Your task to perform on an android device: Search for usb-c on target.com, select the first entry, and add it to the cart. Image 0: 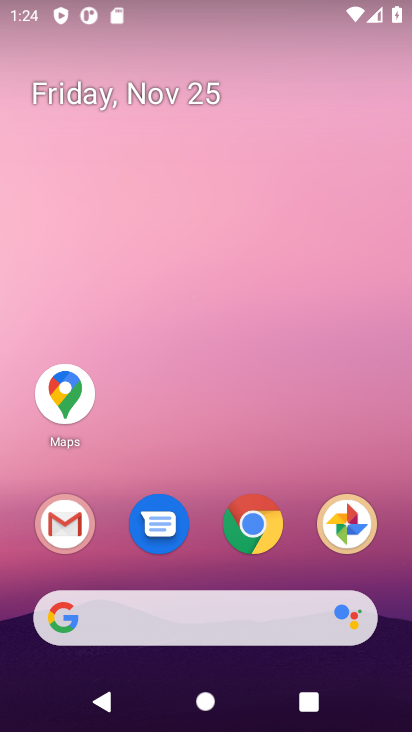
Step 0: click (252, 521)
Your task to perform on an android device: Search for usb-c on target.com, select the first entry, and add it to the cart. Image 1: 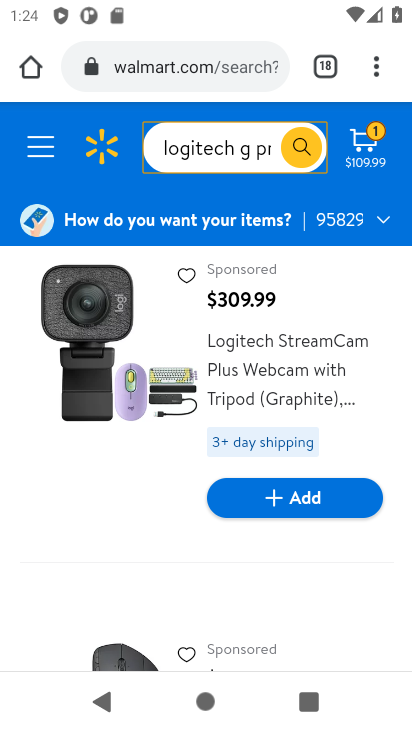
Step 1: click (162, 67)
Your task to perform on an android device: Search for usb-c on target.com, select the first entry, and add it to the cart. Image 2: 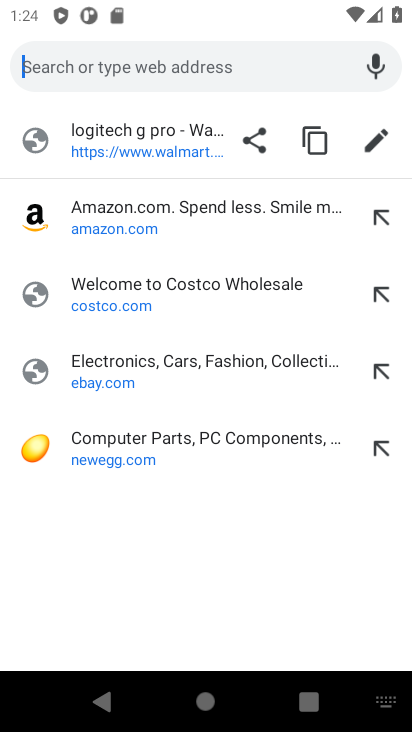
Step 2: type "target.com"
Your task to perform on an android device: Search for usb-c on target.com, select the first entry, and add it to the cart. Image 3: 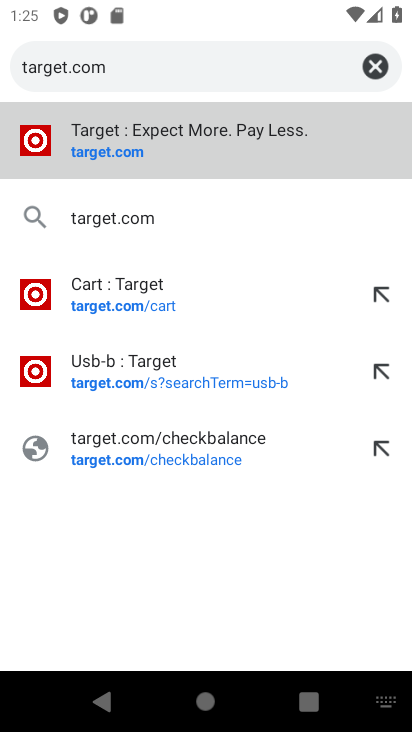
Step 3: click (97, 152)
Your task to perform on an android device: Search for usb-c on target.com, select the first entry, and add it to the cart. Image 4: 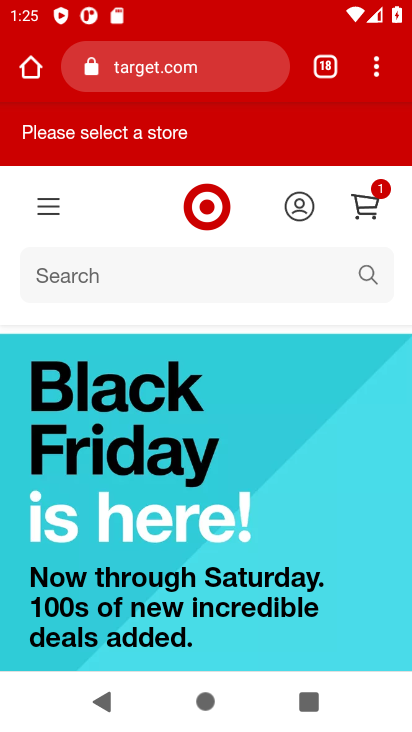
Step 4: click (366, 273)
Your task to perform on an android device: Search for usb-c on target.com, select the first entry, and add it to the cart. Image 5: 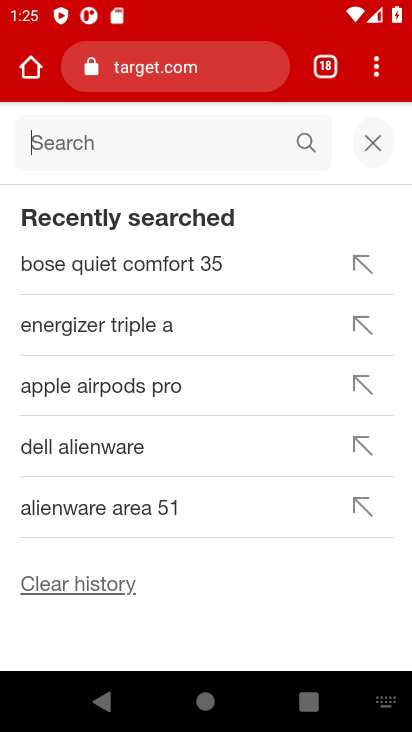
Step 5: type "usb-c "
Your task to perform on an android device: Search for usb-c on target.com, select the first entry, and add it to the cart. Image 6: 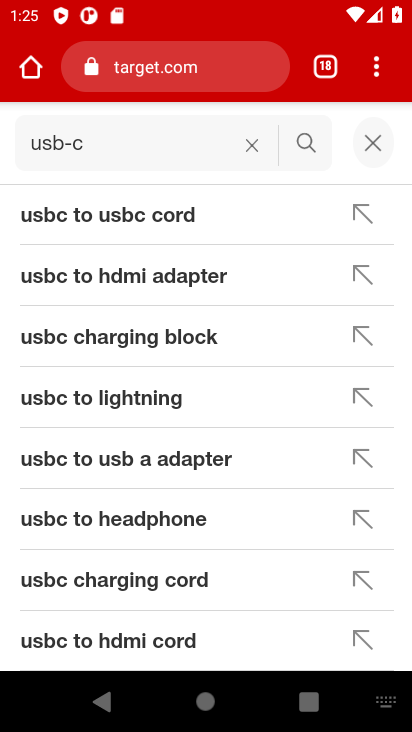
Step 6: click (306, 147)
Your task to perform on an android device: Search for usb-c on target.com, select the first entry, and add it to the cart. Image 7: 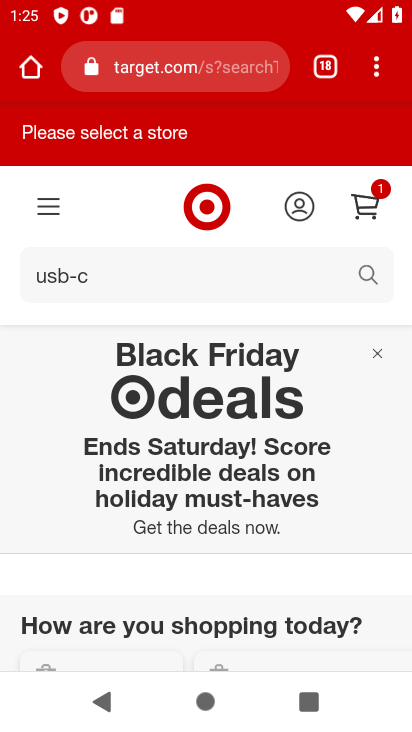
Step 7: drag from (168, 547) to (187, 233)
Your task to perform on an android device: Search for usb-c on target.com, select the first entry, and add it to the cart. Image 8: 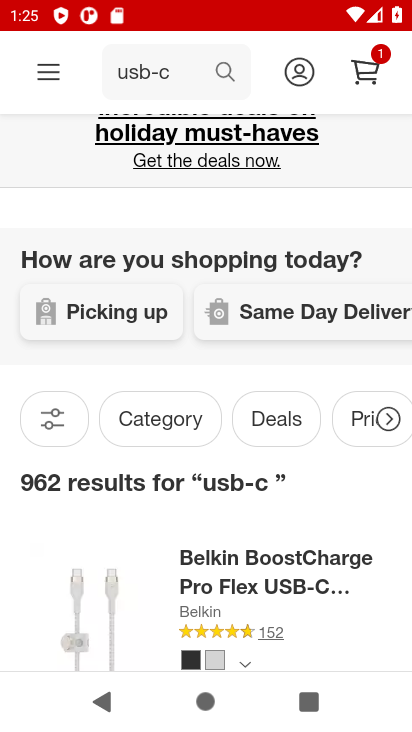
Step 8: drag from (164, 552) to (175, 293)
Your task to perform on an android device: Search for usb-c on target.com, select the first entry, and add it to the cart. Image 9: 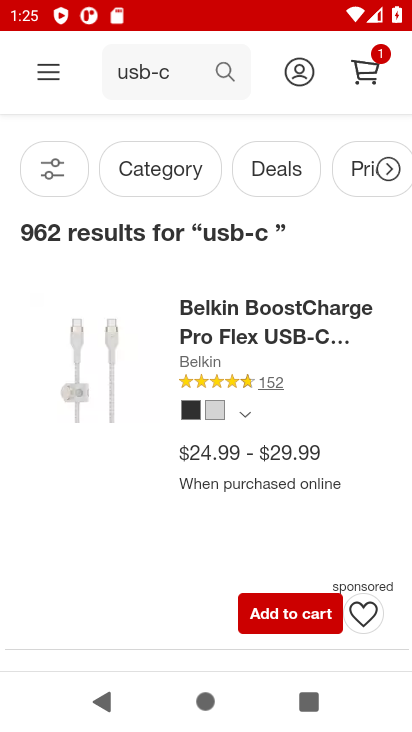
Step 9: click (276, 616)
Your task to perform on an android device: Search for usb-c on target.com, select the first entry, and add it to the cart. Image 10: 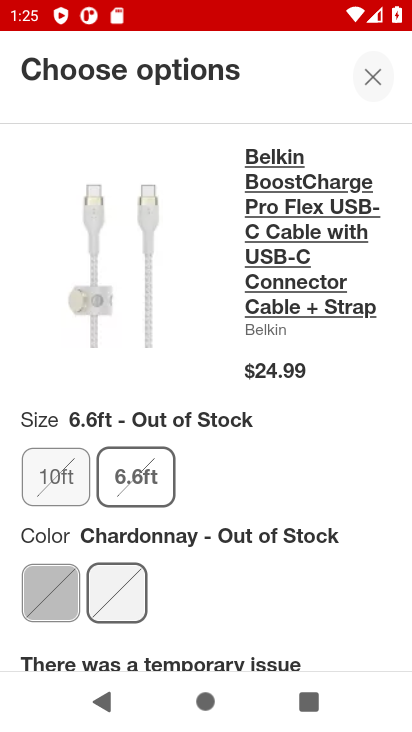
Step 10: drag from (196, 533) to (196, 286)
Your task to perform on an android device: Search for usb-c on target.com, select the first entry, and add it to the cart. Image 11: 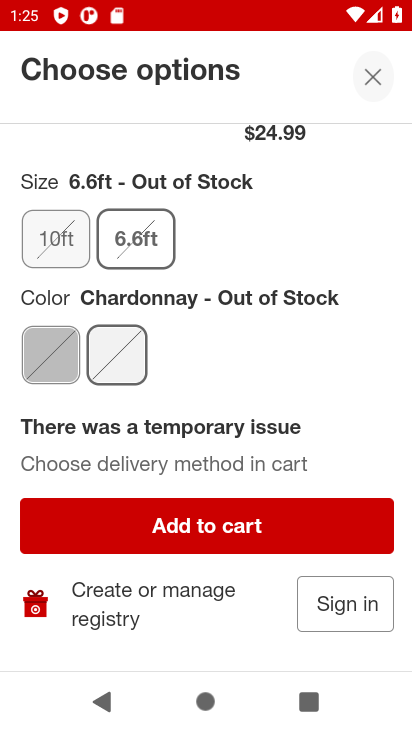
Step 11: click (197, 518)
Your task to perform on an android device: Search for usb-c on target.com, select the first entry, and add it to the cart. Image 12: 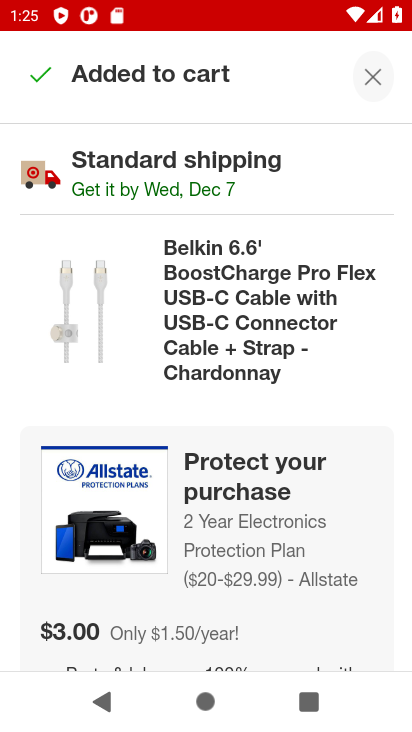
Step 12: task complete